Your task to perform on an android device: refresh tabs in the chrome app Image 0: 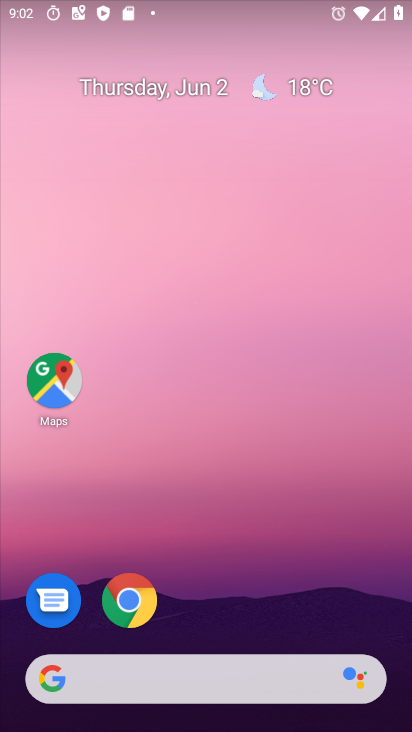
Step 0: drag from (368, 617) to (376, 164)
Your task to perform on an android device: refresh tabs in the chrome app Image 1: 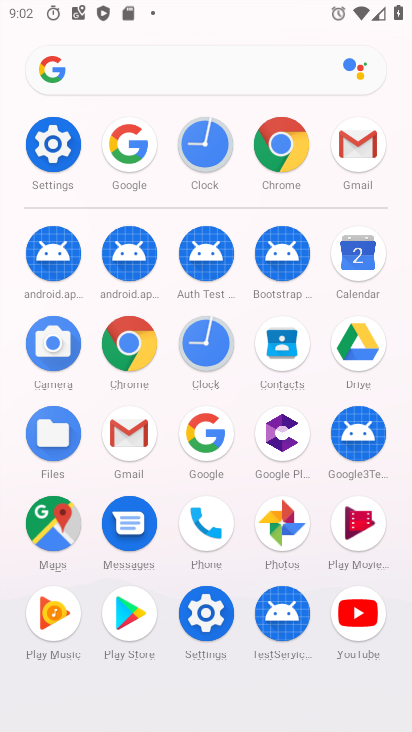
Step 1: click (139, 352)
Your task to perform on an android device: refresh tabs in the chrome app Image 2: 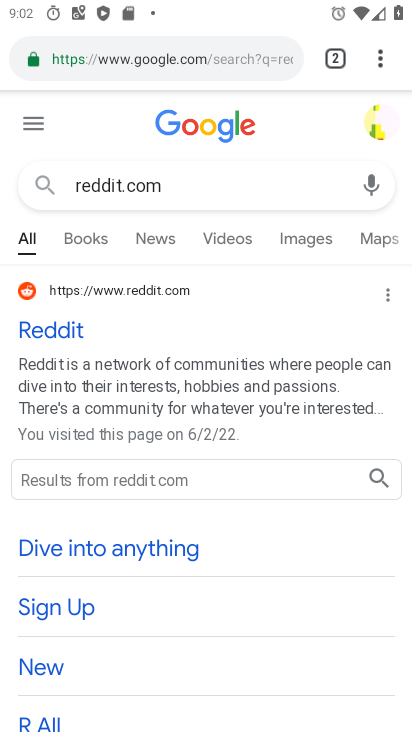
Step 2: click (379, 66)
Your task to perform on an android device: refresh tabs in the chrome app Image 3: 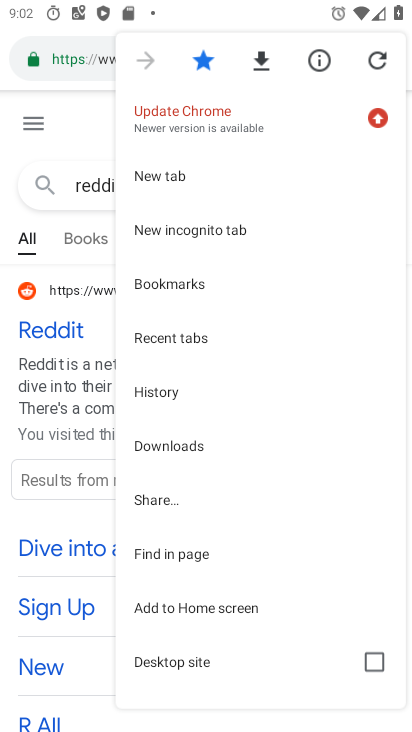
Step 3: click (379, 66)
Your task to perform on an android device: refresh tabs in the chrome app Image 4: 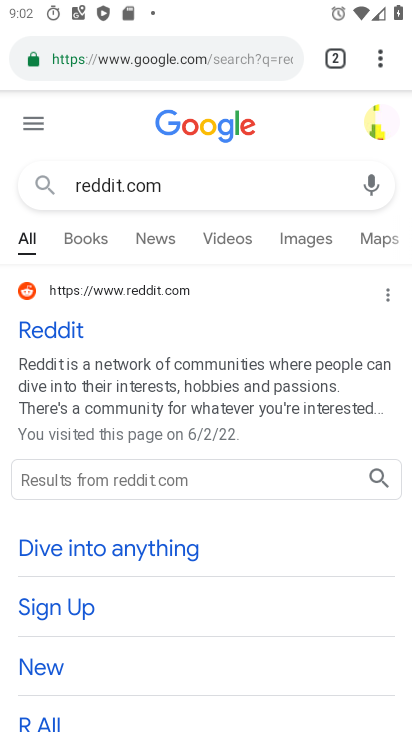
Step 4: task complete